Your task to perform on an android device: turn on showing notifications on the lock screen Image 0: 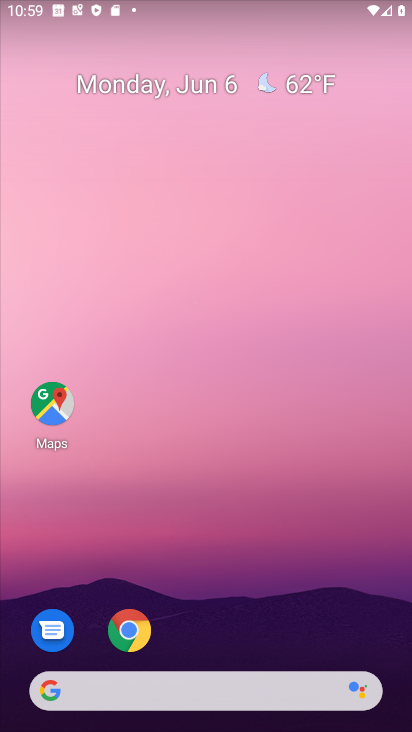
Step 0: drag from (331, 601) to (301, 158)
Your task to perform on an android device: turn on showing notifications on the lock screen Image 1: 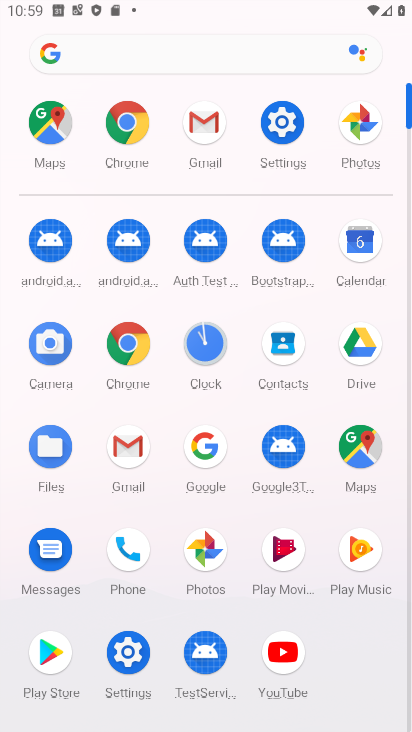
Step 1: click (149, 644)
Your task to perform on an android device: turn on showing notifications on the lock screen Image 2: 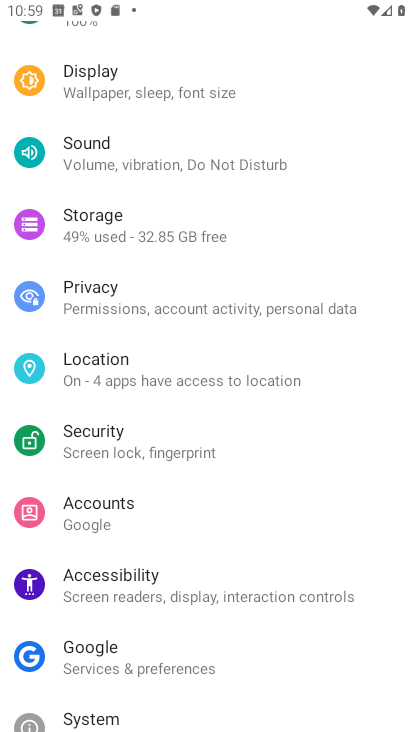
Step 2: drag from (264, 644) to (271, 193)
Your task to perform on an android device: turn on showing notifications on the lock screen Image 3: 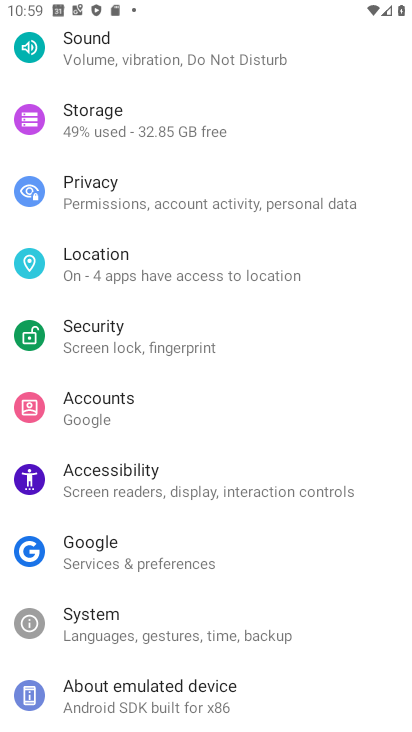
Step 3: drag from (267, 181) to (255, 631)
Your task to perform on an android device: turn on showing notifications on the lock screen Image 4: 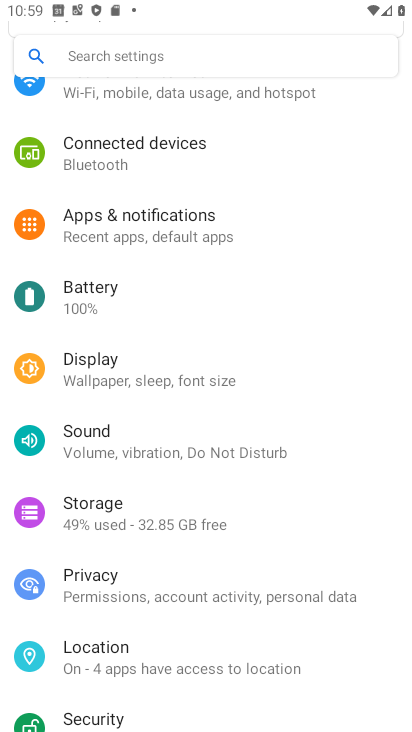
Step 4: click (148, 200)
Your task to perform on an android device: turn on showing notifications on the lock screen Image 5: 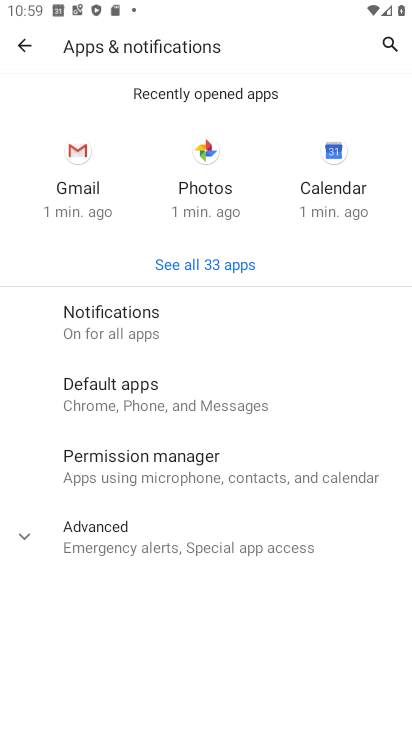
Step 5: click (140, 325)
Your task to perform on an android device: turn on showing notifications on the lock screen Image 6: 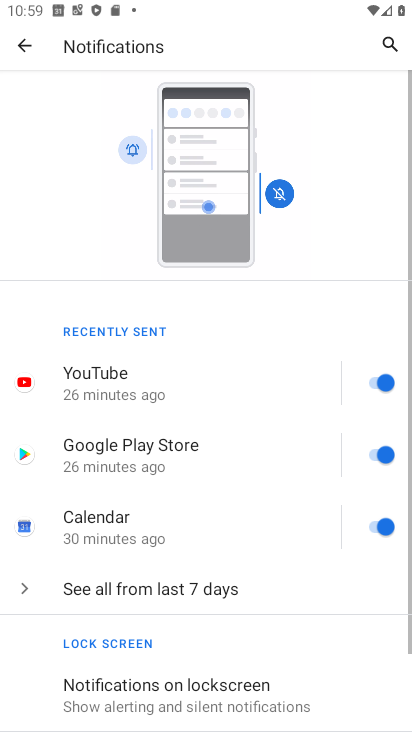
Step 6: click (192, 689)
Your task to perform on an android device: turn on showing notifications on the lock screen Image 7: 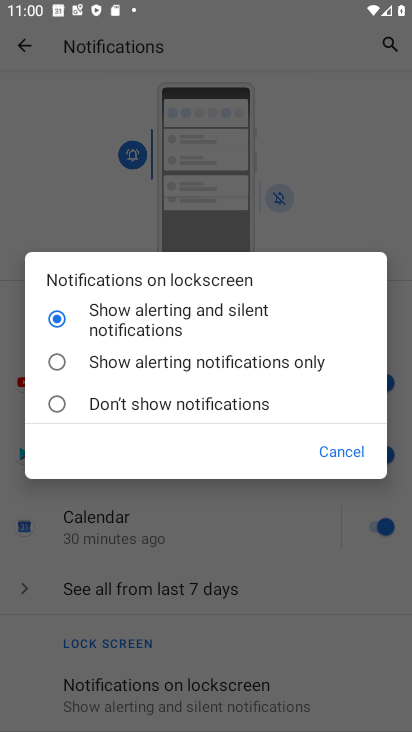
Step 7: task complete